Your task to perform on an android device: Open settings Image 0: 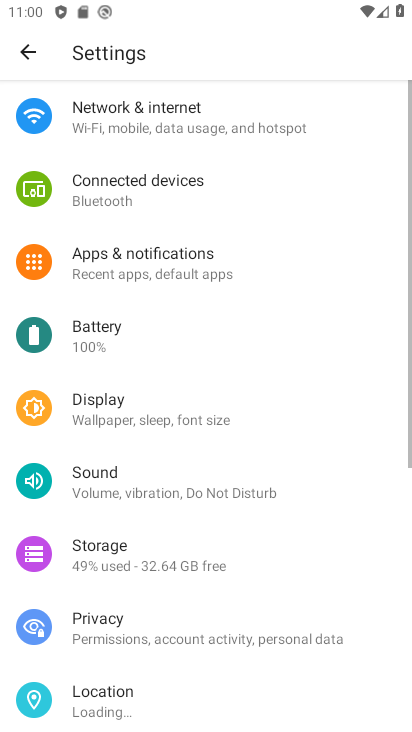
Step 0: click (126, 340)
Your task to perform on an android device: Open settings Image 1: 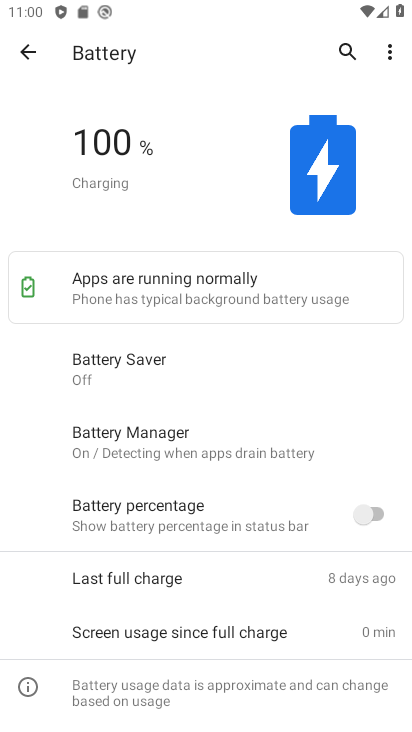
Step 1: task complete